Your task to perform on an android device: change notification settings in the gmail app Image 0: 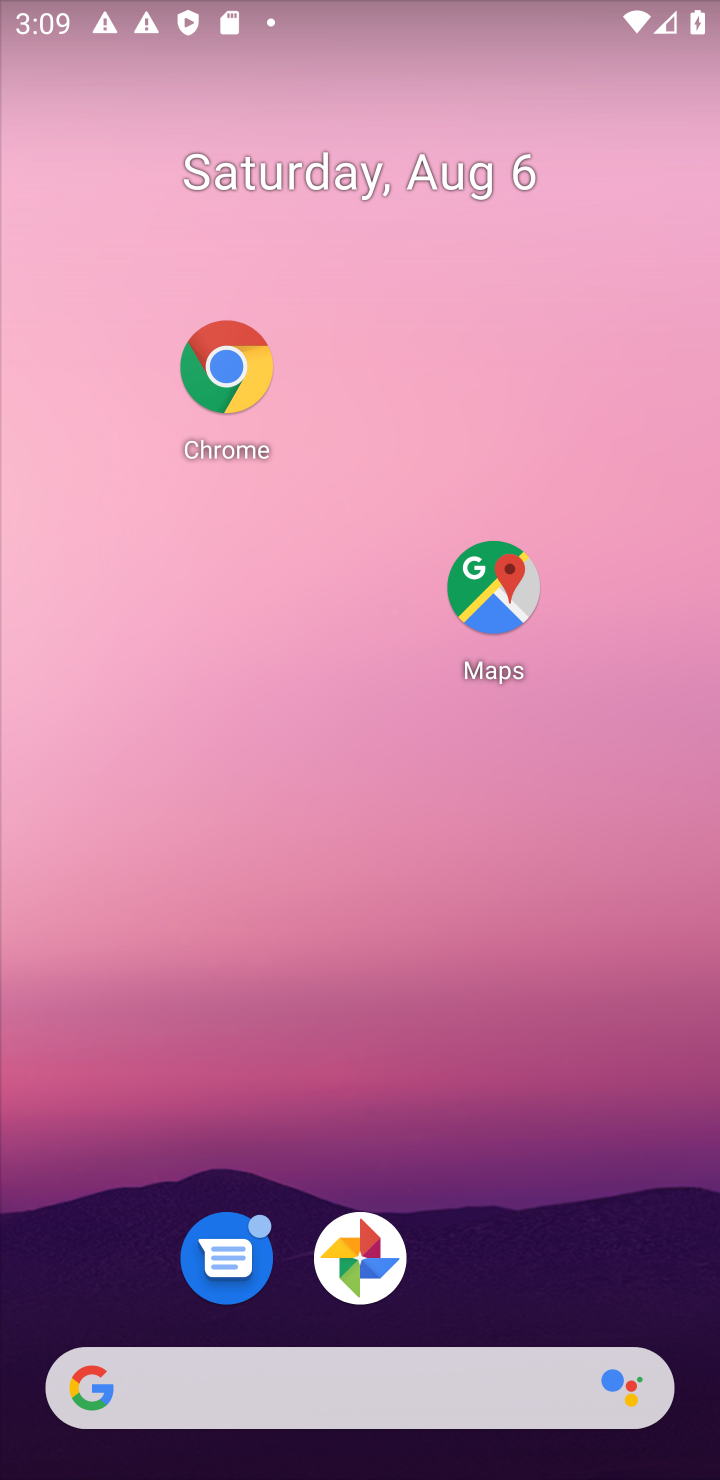
Step 0: click (500, 357)
Your task to perform on an android device: change notification settings in the gmail app Image 1: 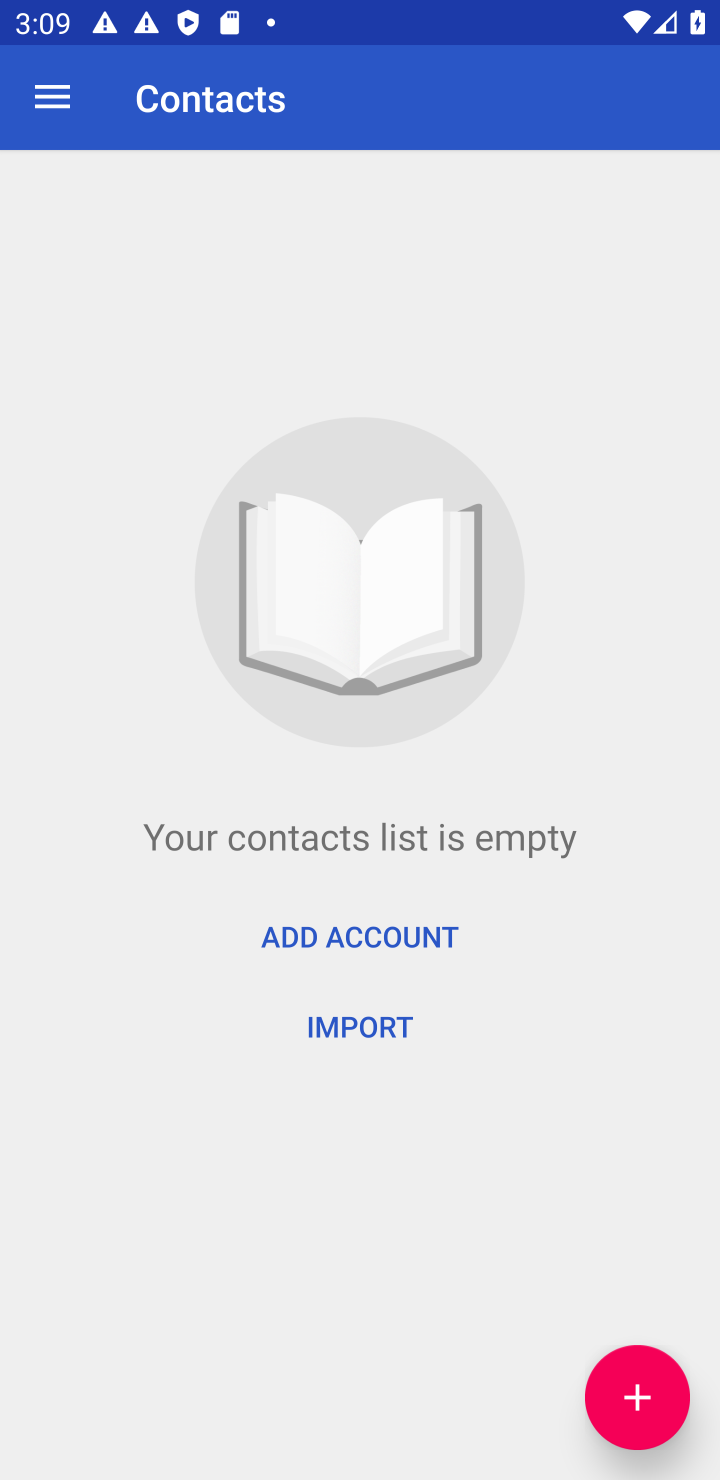
Step 1: press back button
Your task to perform on an android device: change notification settings in the gmail app Image 2: 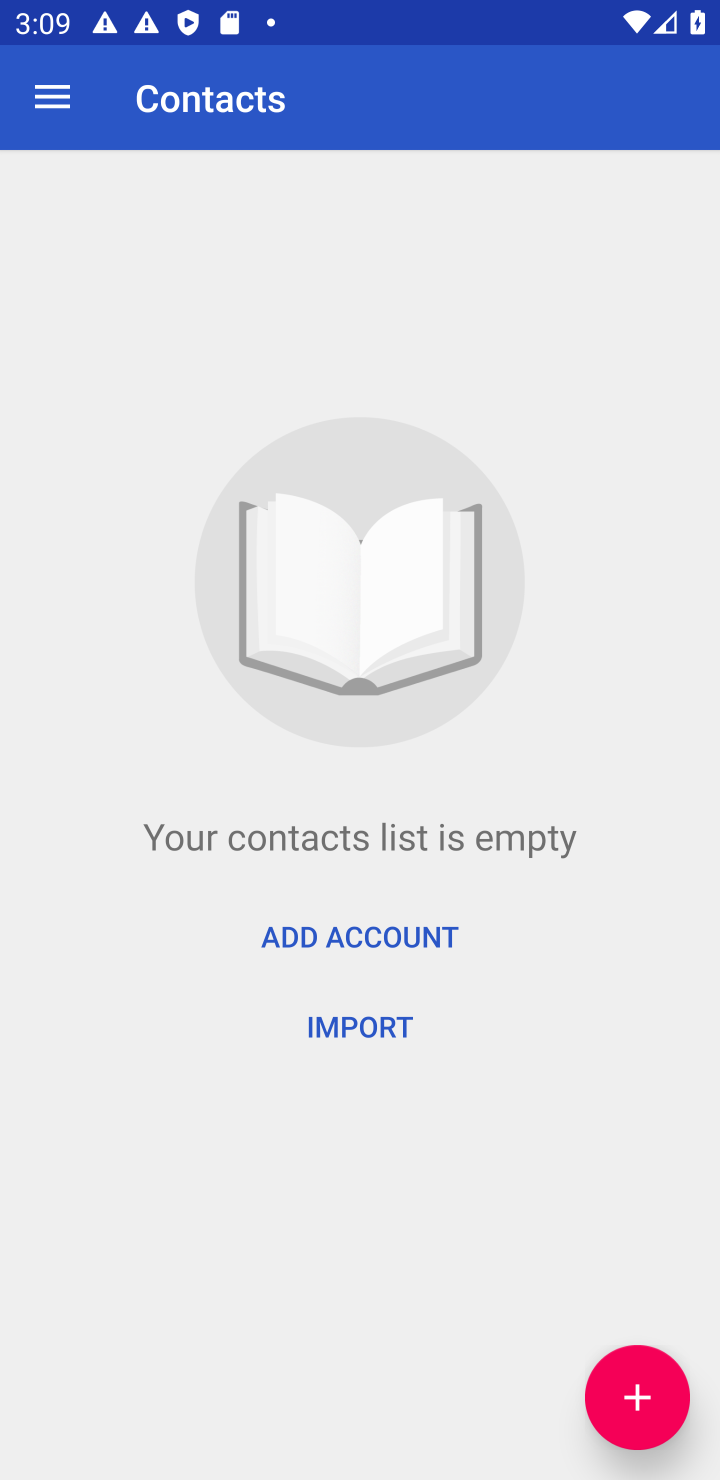
Step 2: press back button
Your task to perform on an android device: change notification settings in the gmail app Image 3: 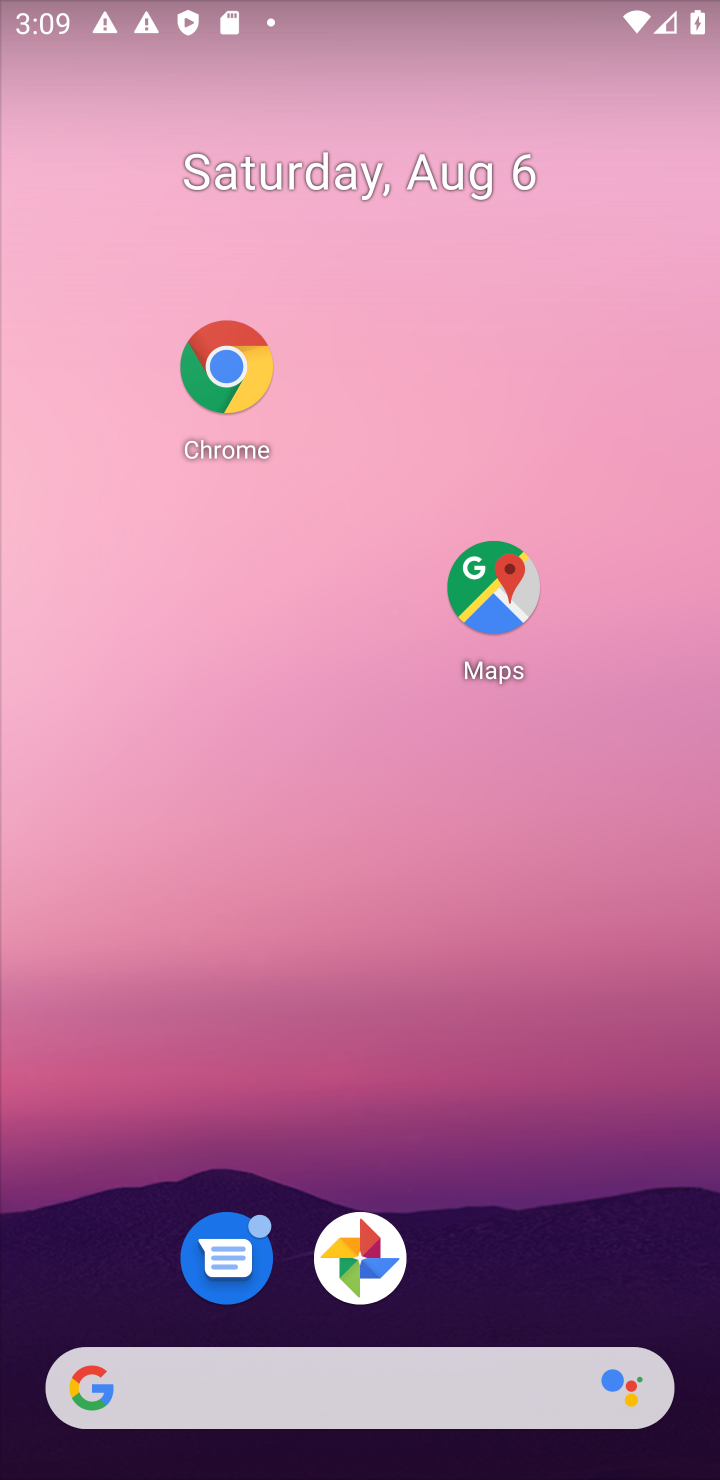
Step 3: click (348, 506)
Your task to perform on an android device: change notification settings in the gmail app Image 4: 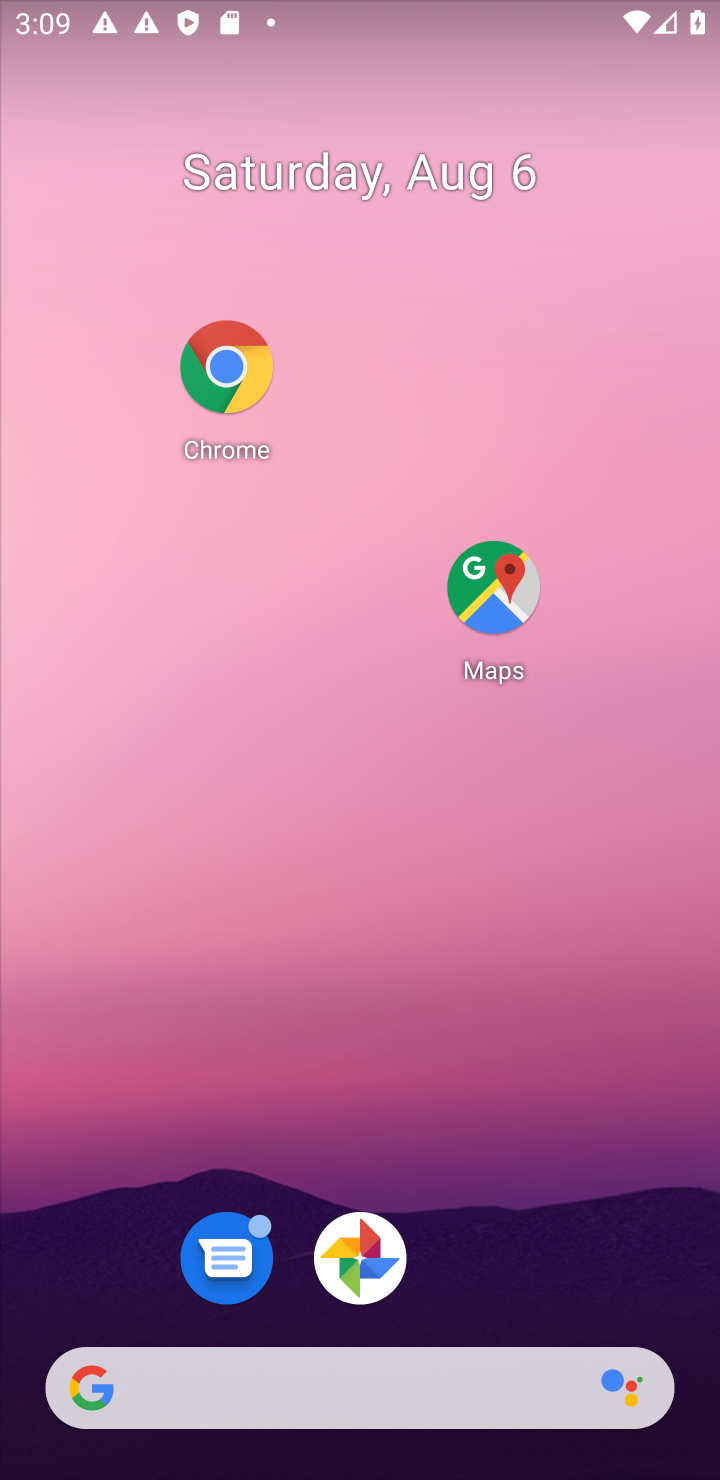
Step 4: click (410, 1019)
Your task to perform on an android device: change notification settings in the gmail app Image 5: 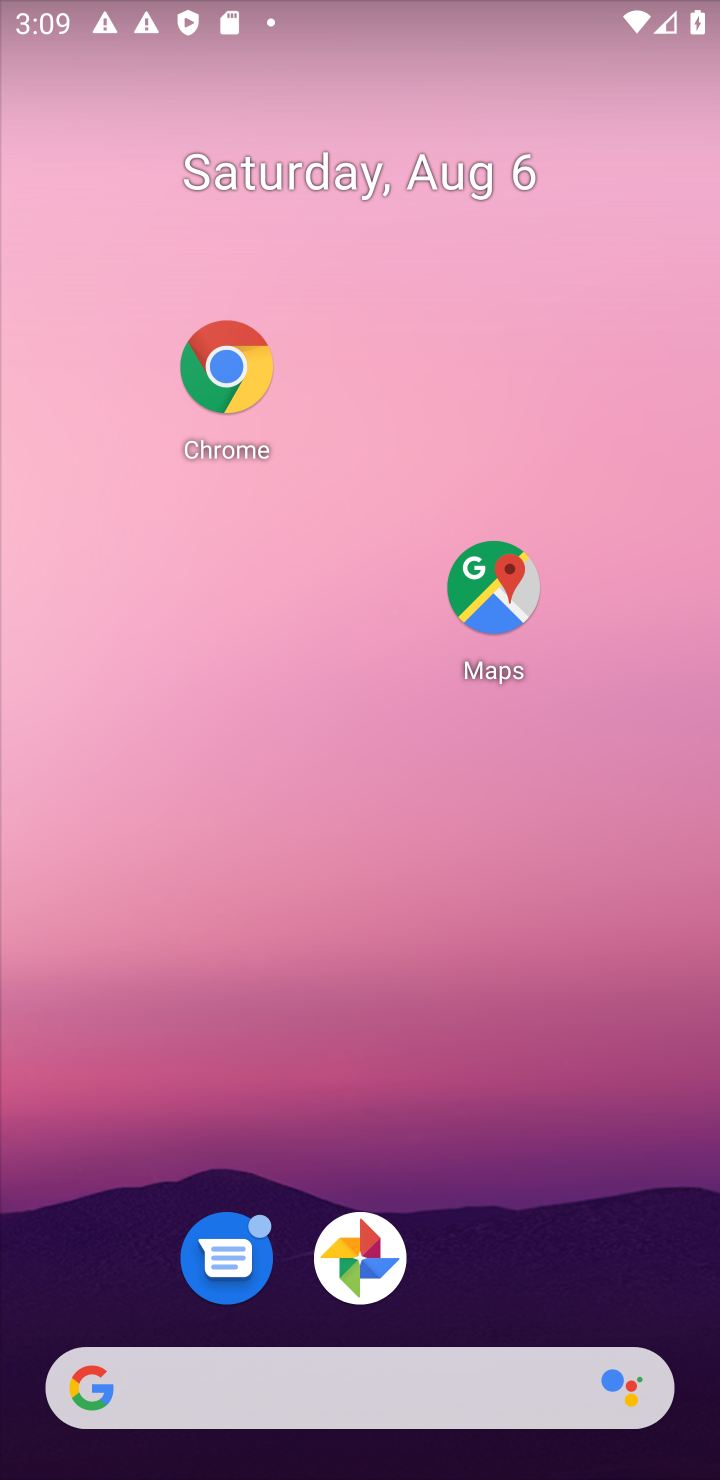
Step 5: drag from (365, 1213) to (323, 127)
Your task to perform on an android device: change notification settings in the gmail app Image 6: 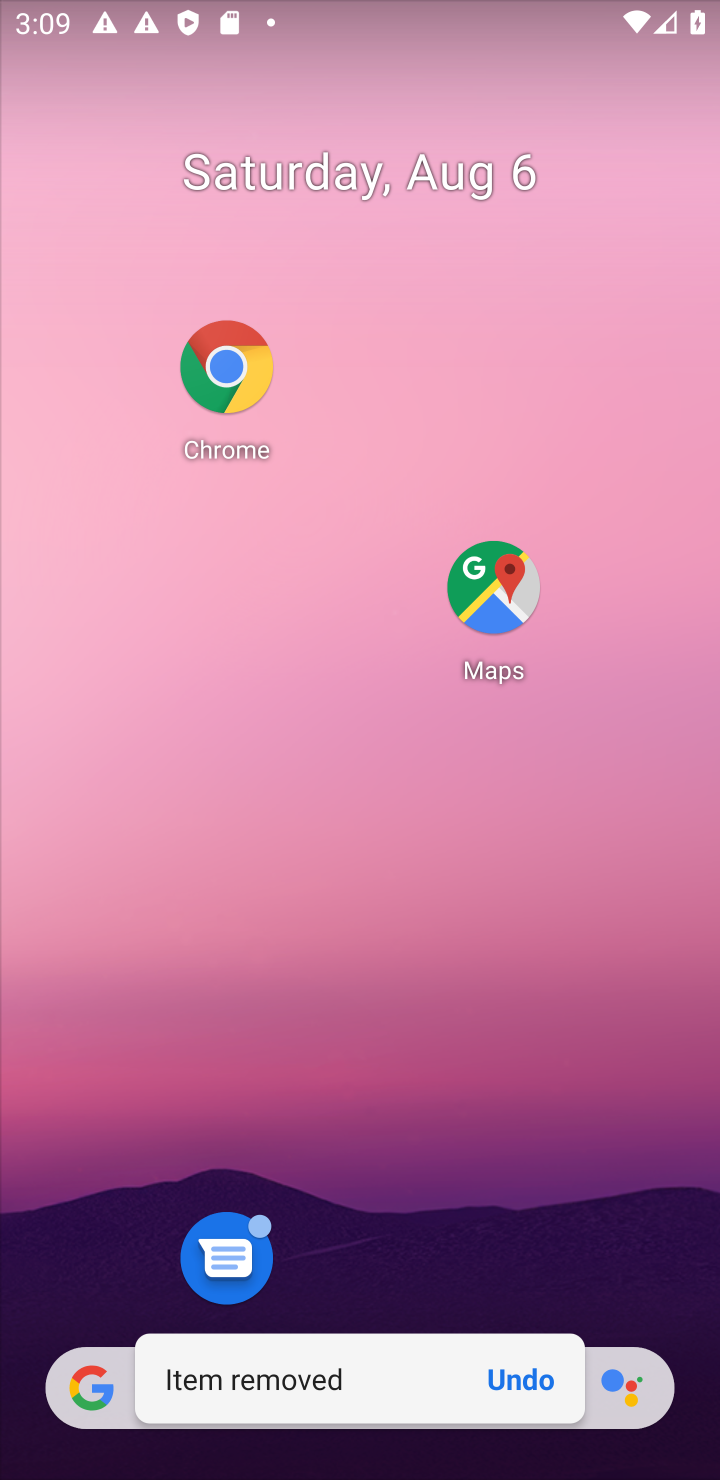
Step 6: drag from (348, 873) to (222, 347)
Your task to perform on an android device: change notification settings in the gmail app Image 7: 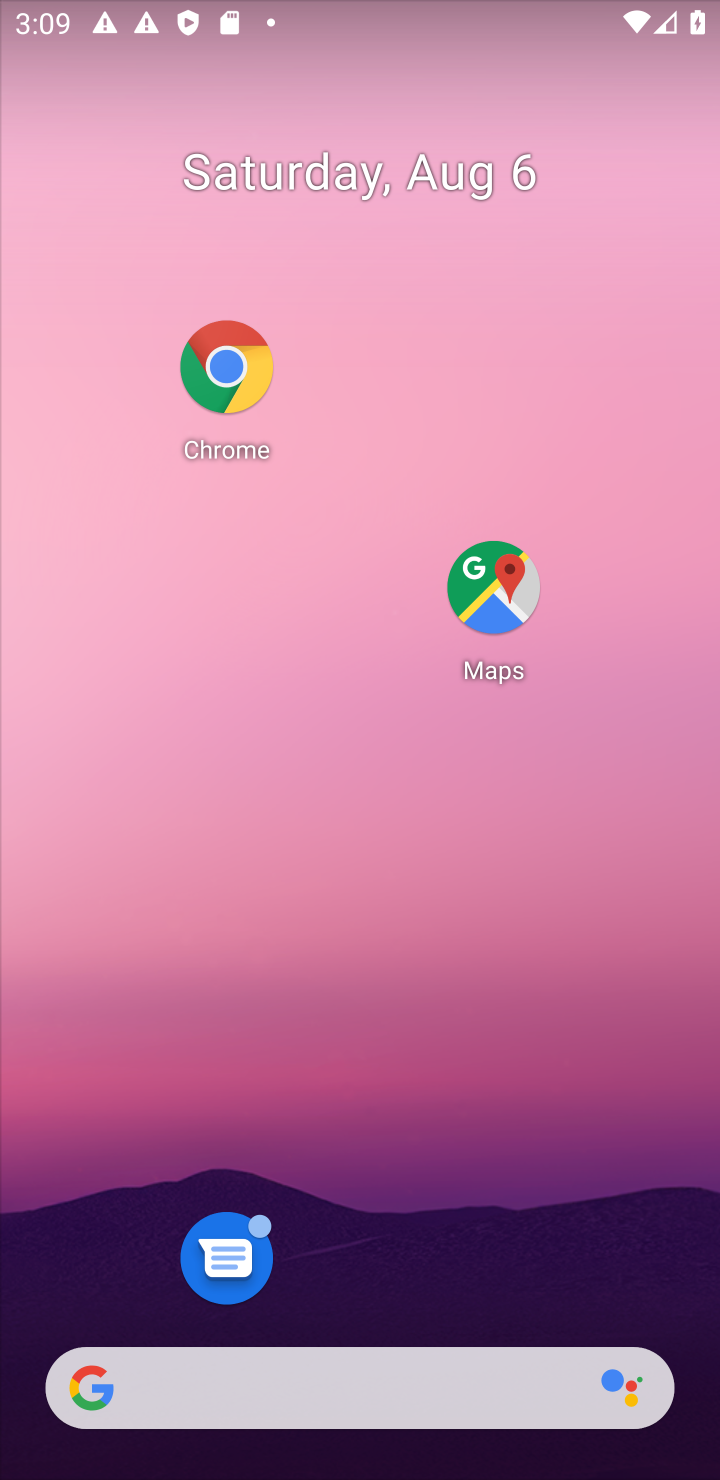
Step 7: drag from (307, 1190) to (288, 112)
Your task to perform on an android device: change notification settings in the gmail app Image 8: 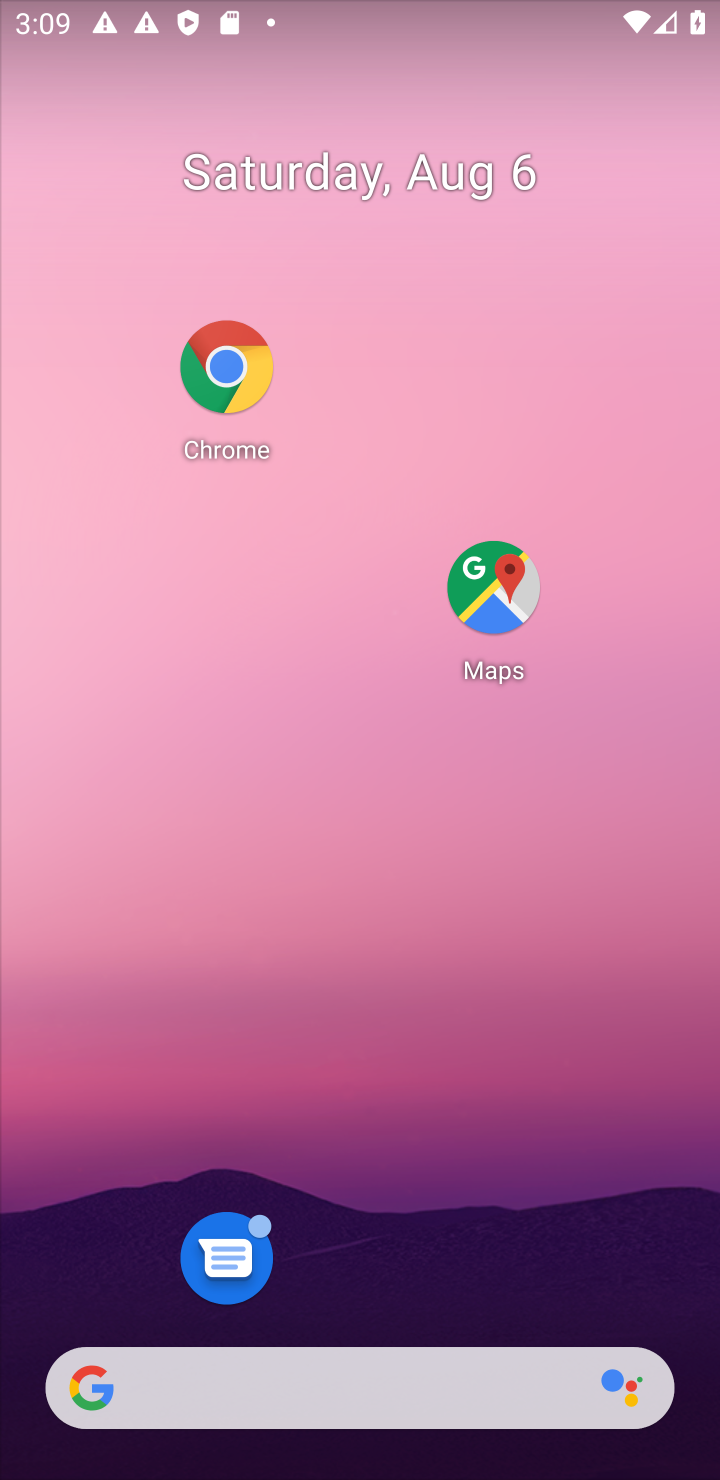
Step 8: drag from (494, 1113) to (332, 154)
Your task to perform on an android device: change notification settings in the gmail app Image 9: 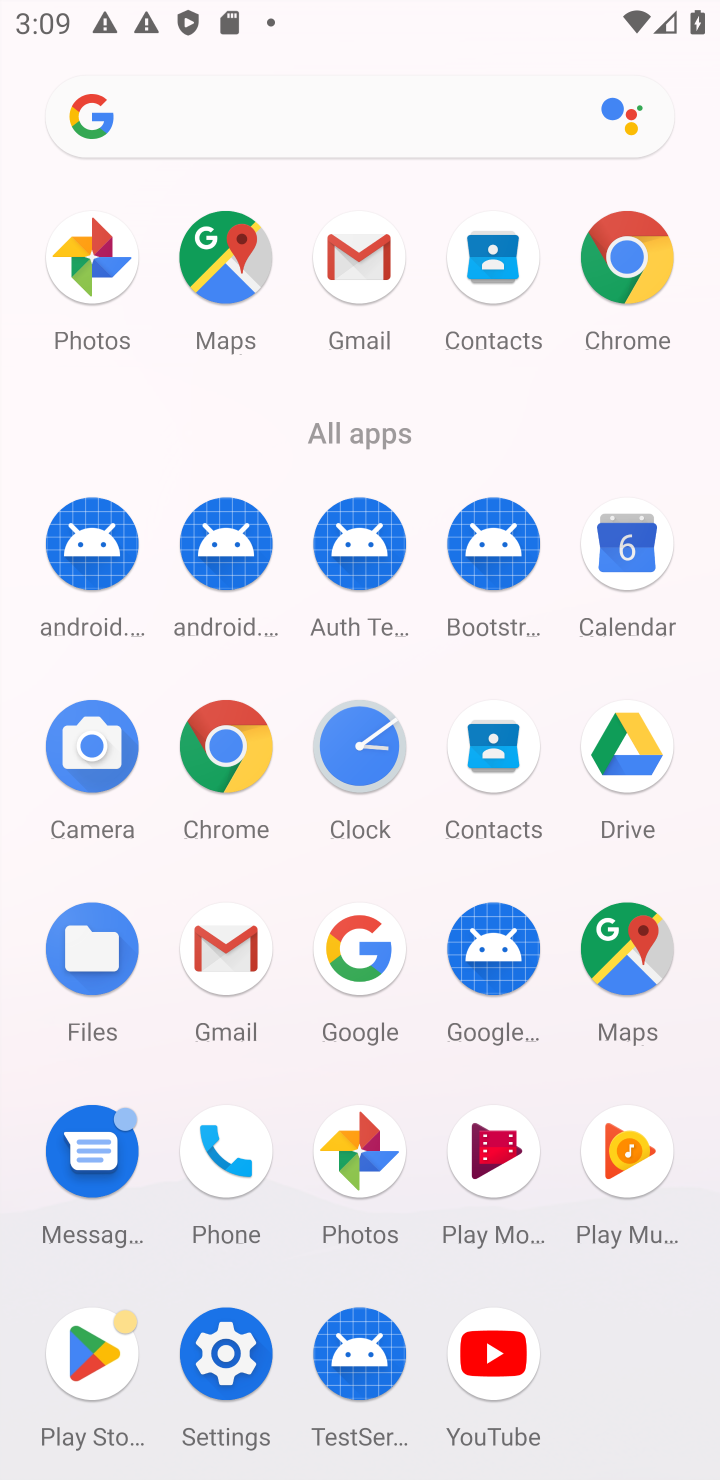
Step 9: click (364, 287)
Your task to perform on an android device: change notification settings in the gmail app Image 10: 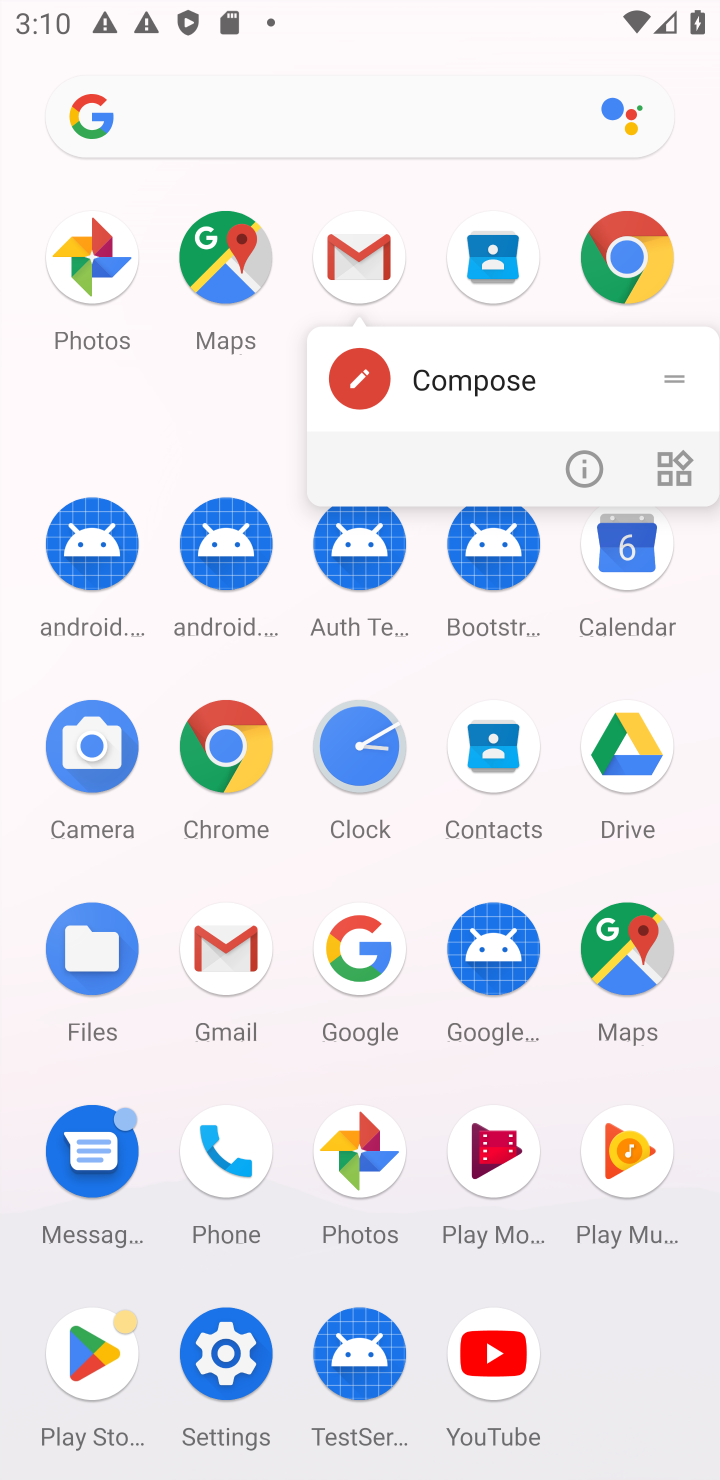
Step 10: click (372, 242)
Your task to perform on an android device: change notification settings in the gmail app Image 11: 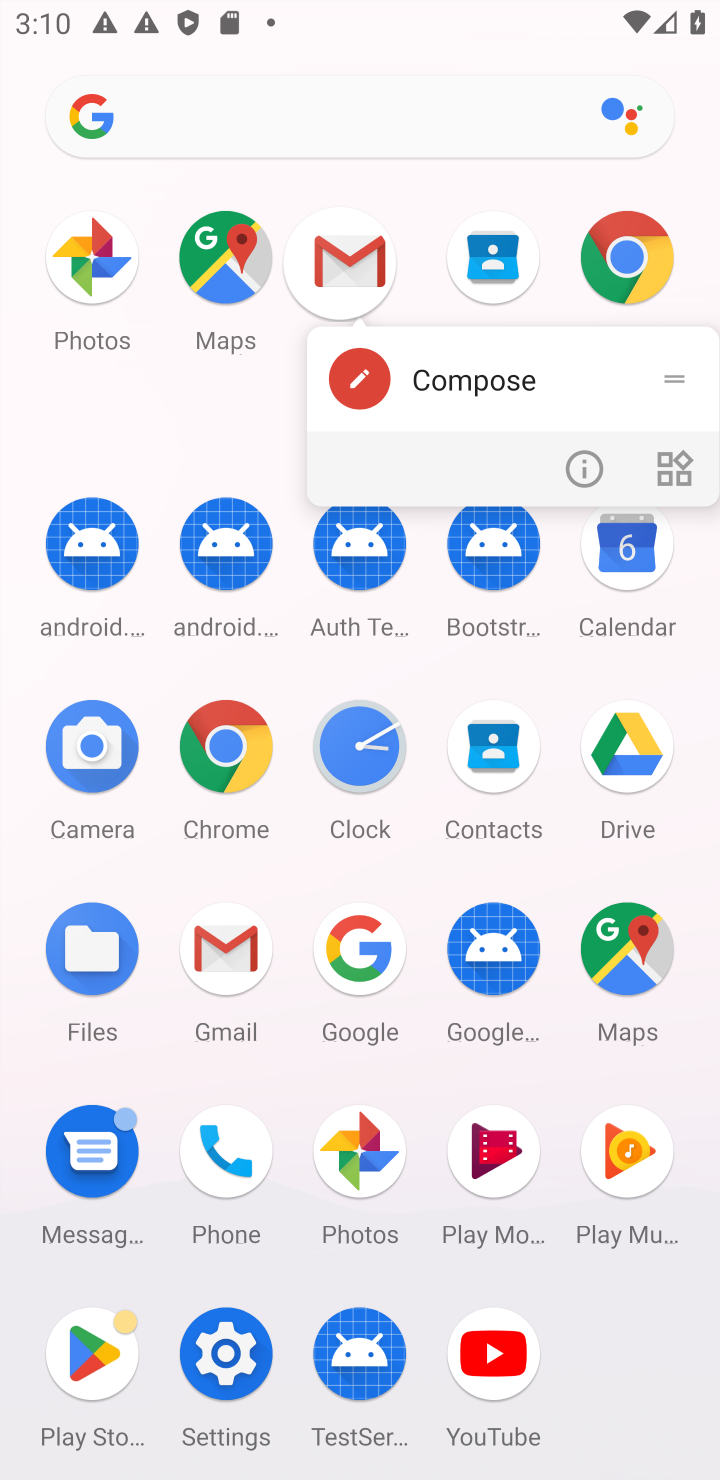
Step 11: click (356, 249)
Your task to perform on an android device: change notification settings in the gmail app Image 12: 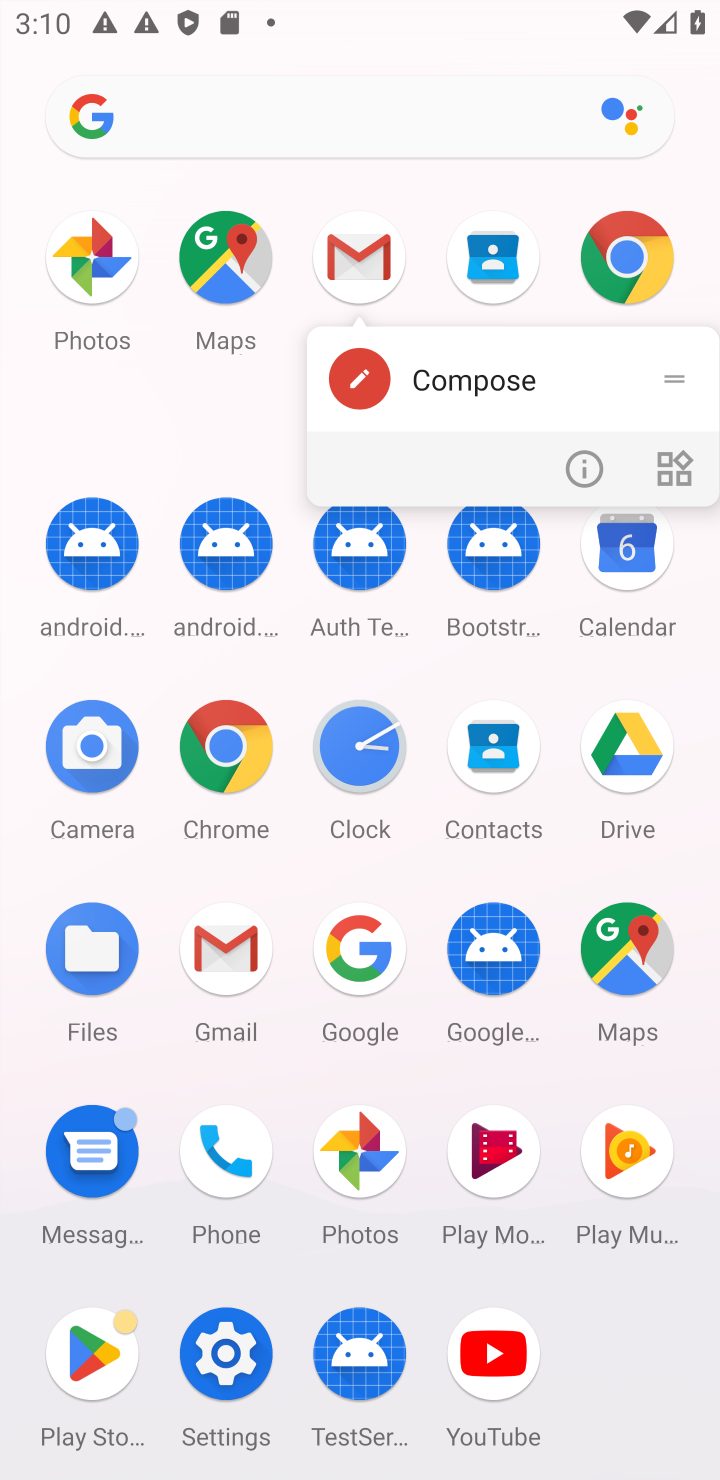
Step 12: click (345, 251)
Your task to perform on an android device: change notification settings in the gmail app Image 13: 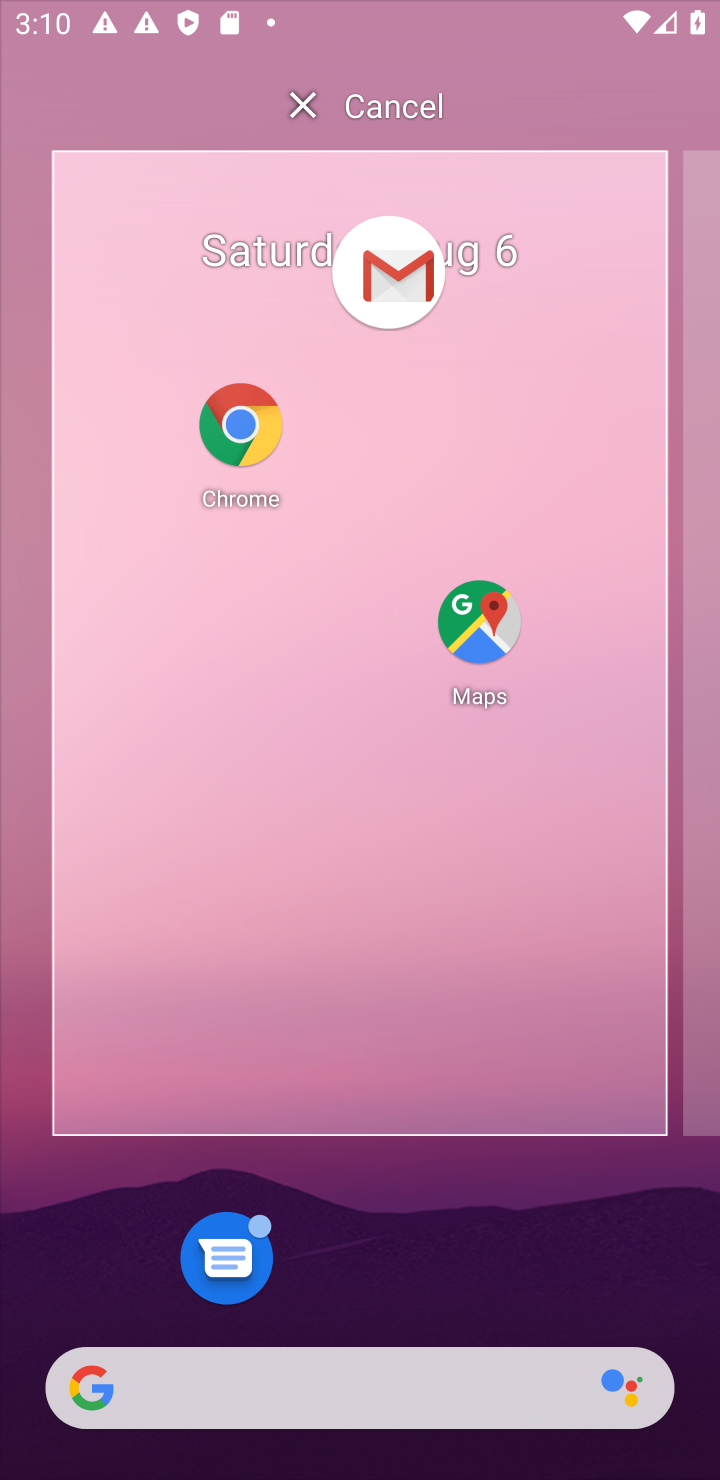
Step 13: click (370, 266)
Your task to perform on an android device: change notification settings in the gmail app Image 14: 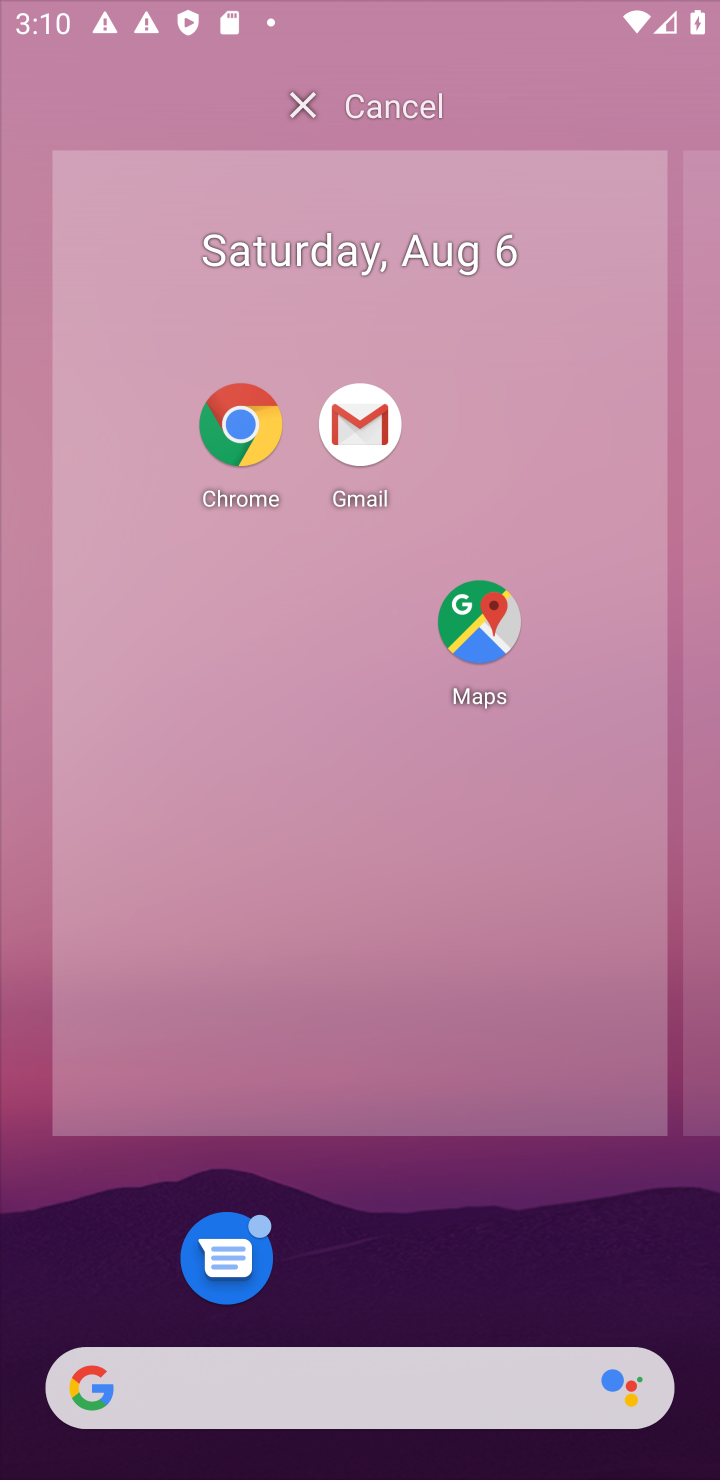
Step 14: click (291, 96)
Your task to perform on an android device: change notification settings in the gmail app Image 15: 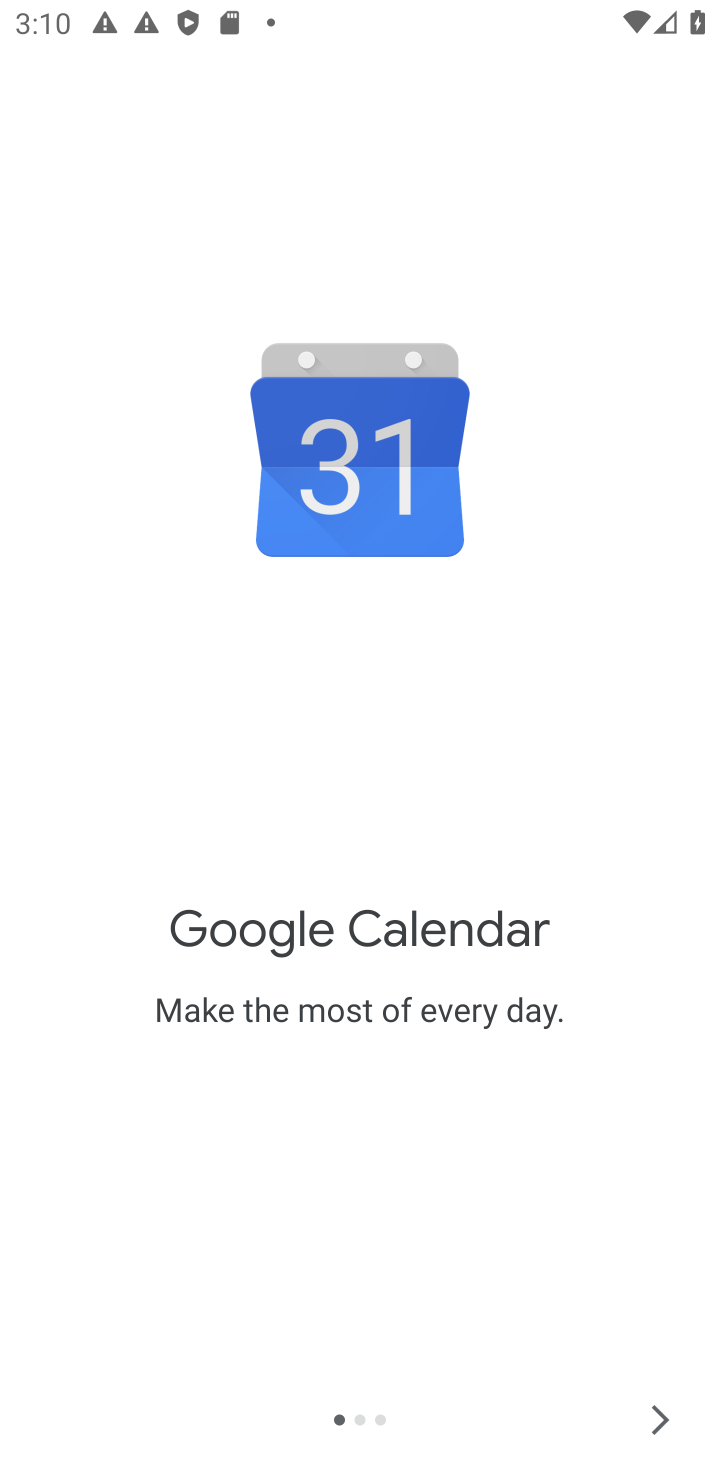
Step 15: click (664, 1402)
Your task to perform on an android device: change notification settings in the gmail app Image 16: 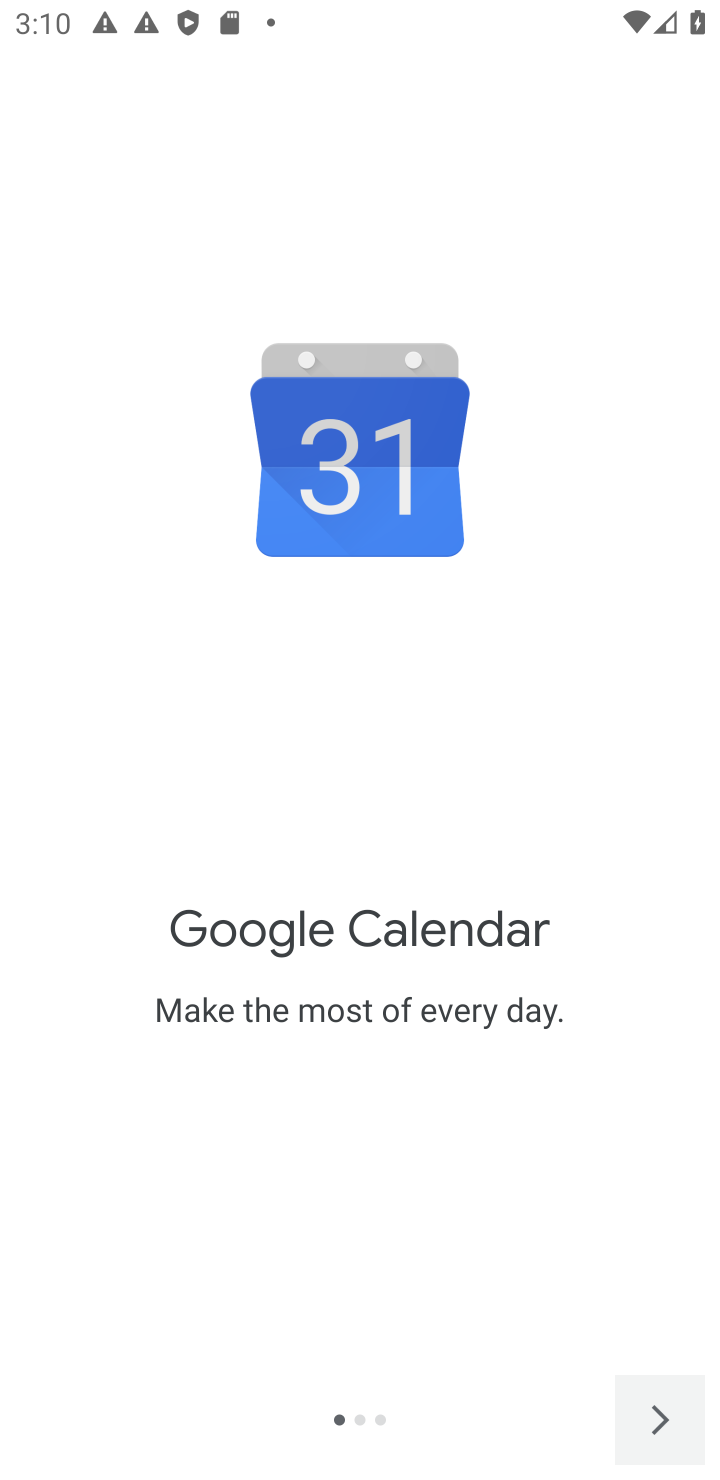
Step 16: click (648, 1406)
Your task to perform on an android device: change notification settings in the gmail app Image 17: 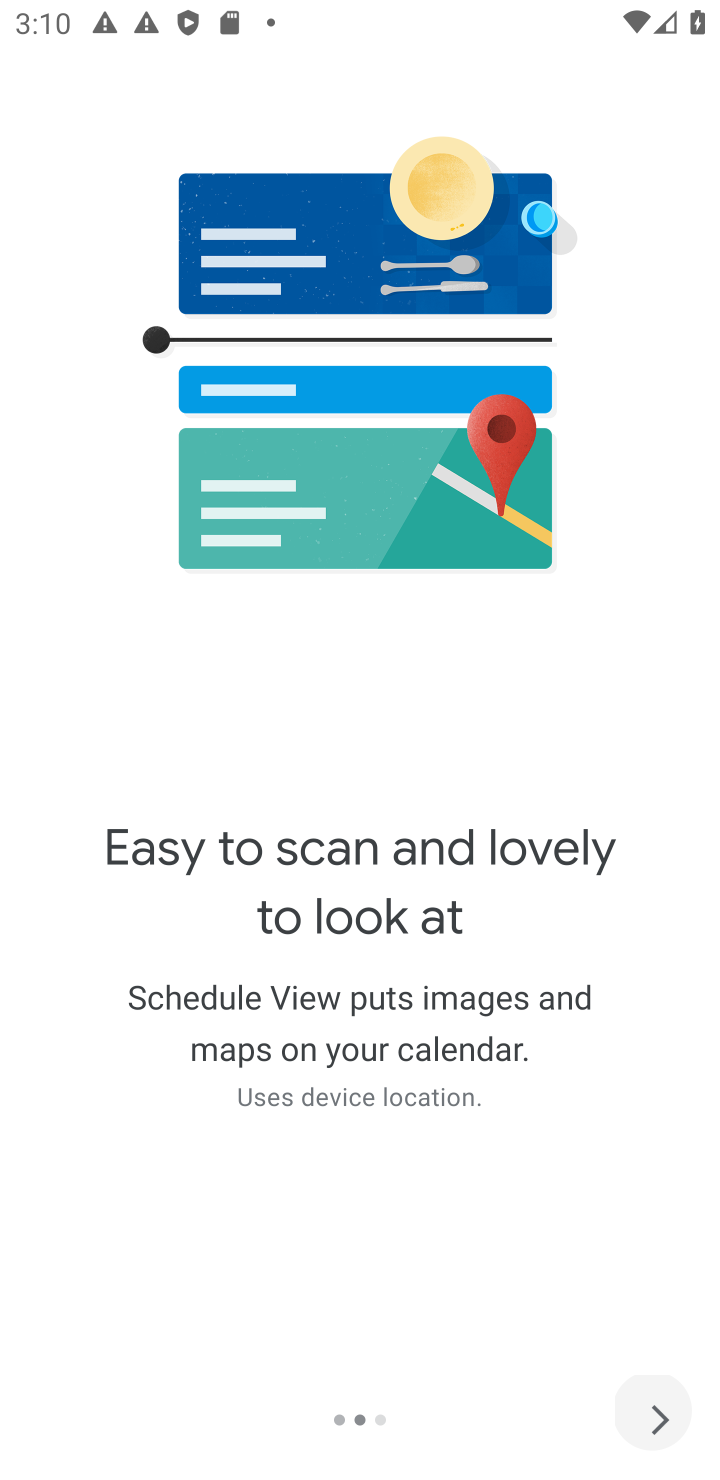
Step 17: click (652, 1401)
Your task to perform on an android device: change notification settings in the gmail app Image 18: 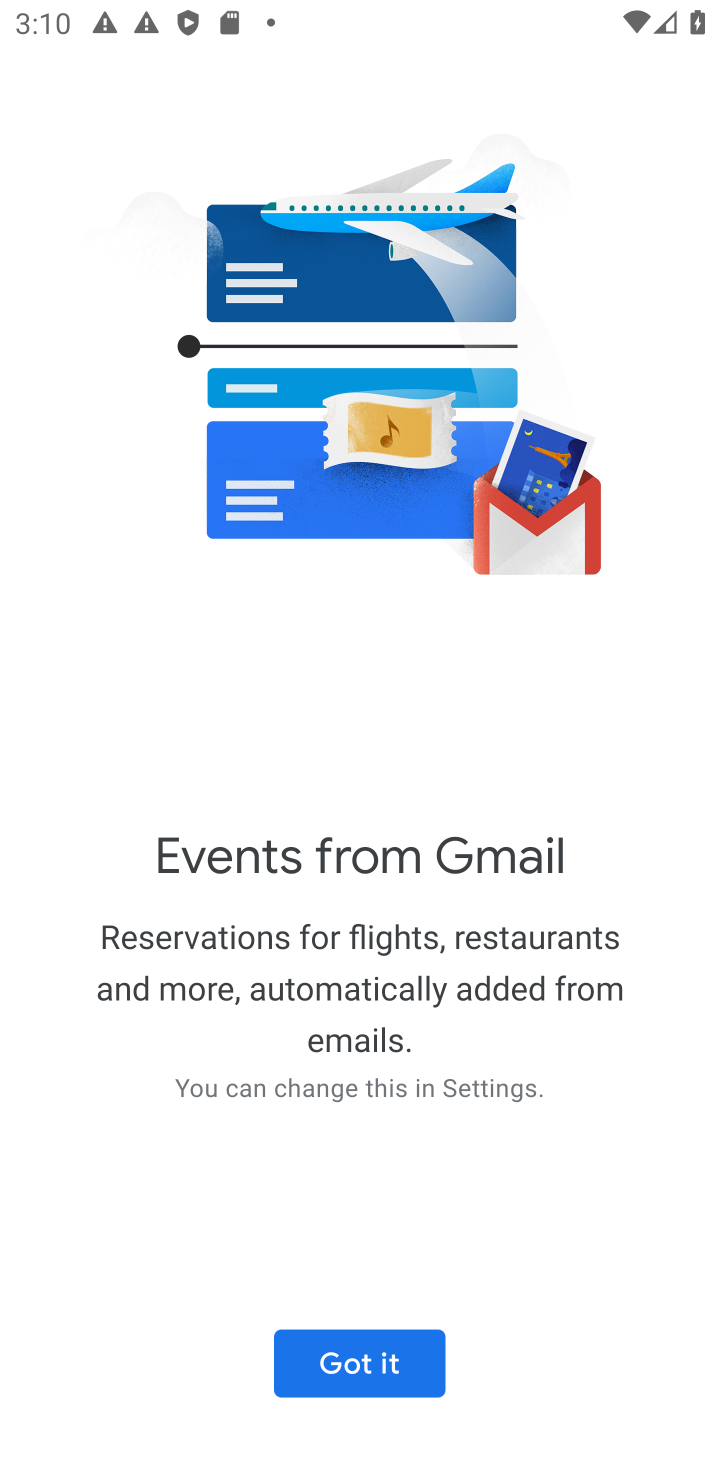
Step 18: click (369, 1359)
Your task to perform on an android device: change notification settings in the gmail app Image 19: 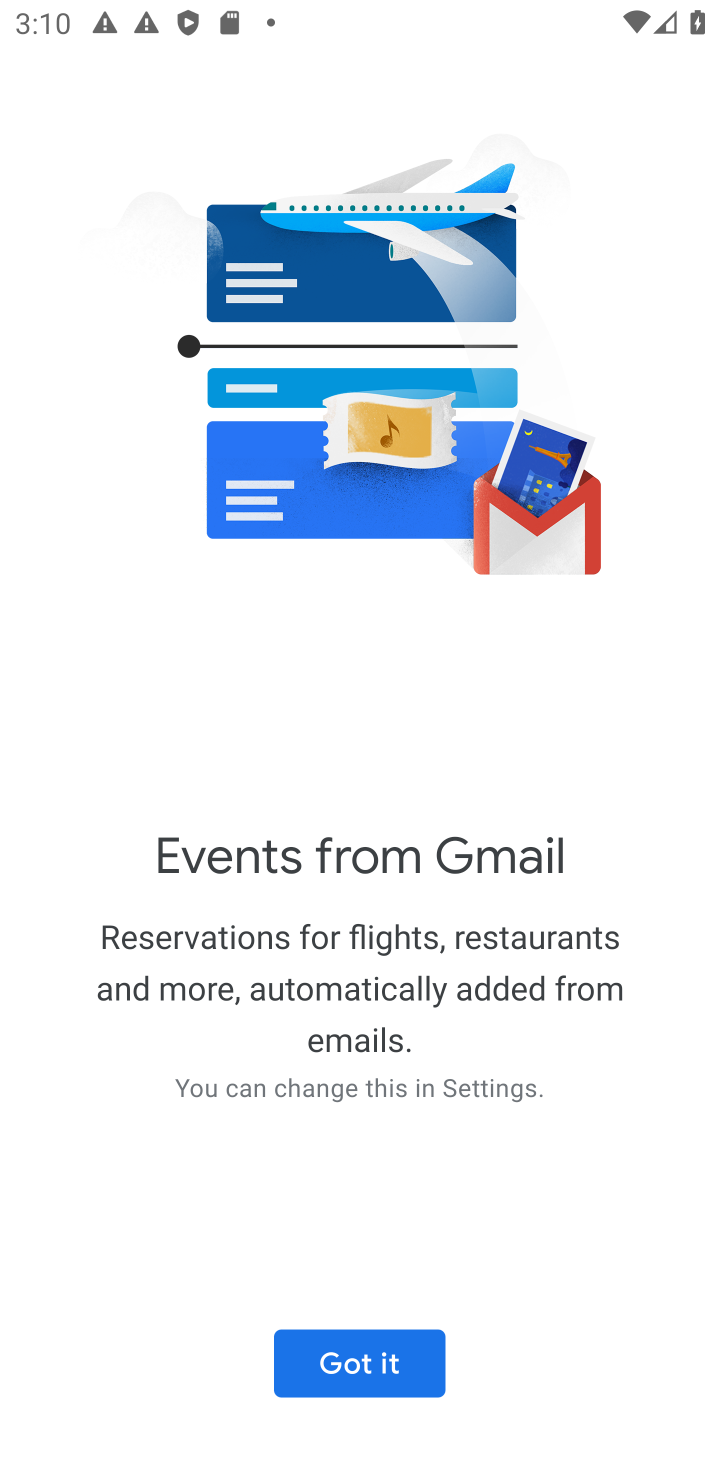
Step 19: click (362, 1365)
Your task to perform on an android device: change notification settings in the gmail app Image 20: 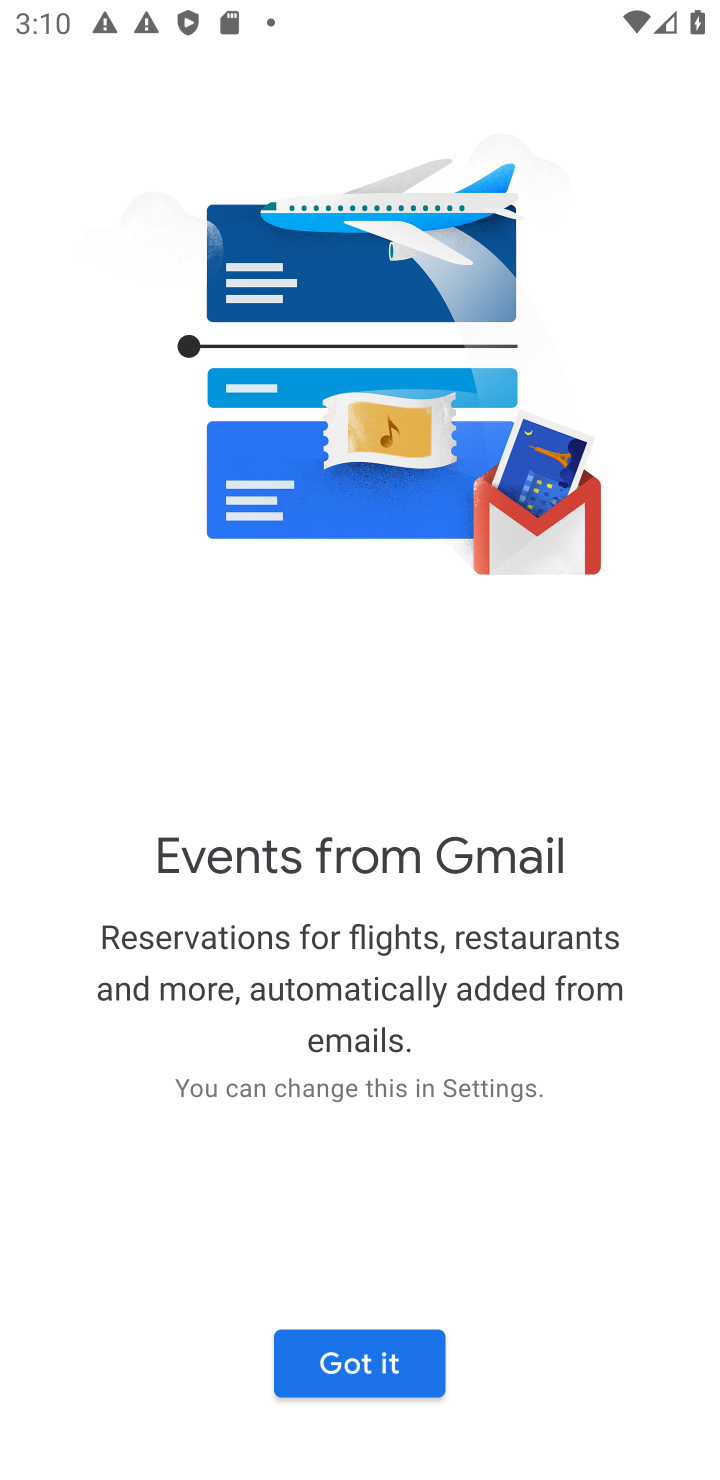
Step 20: click (361, 1366)
Your task to perform on an android device: change notification settings in the gmail app Image 21: 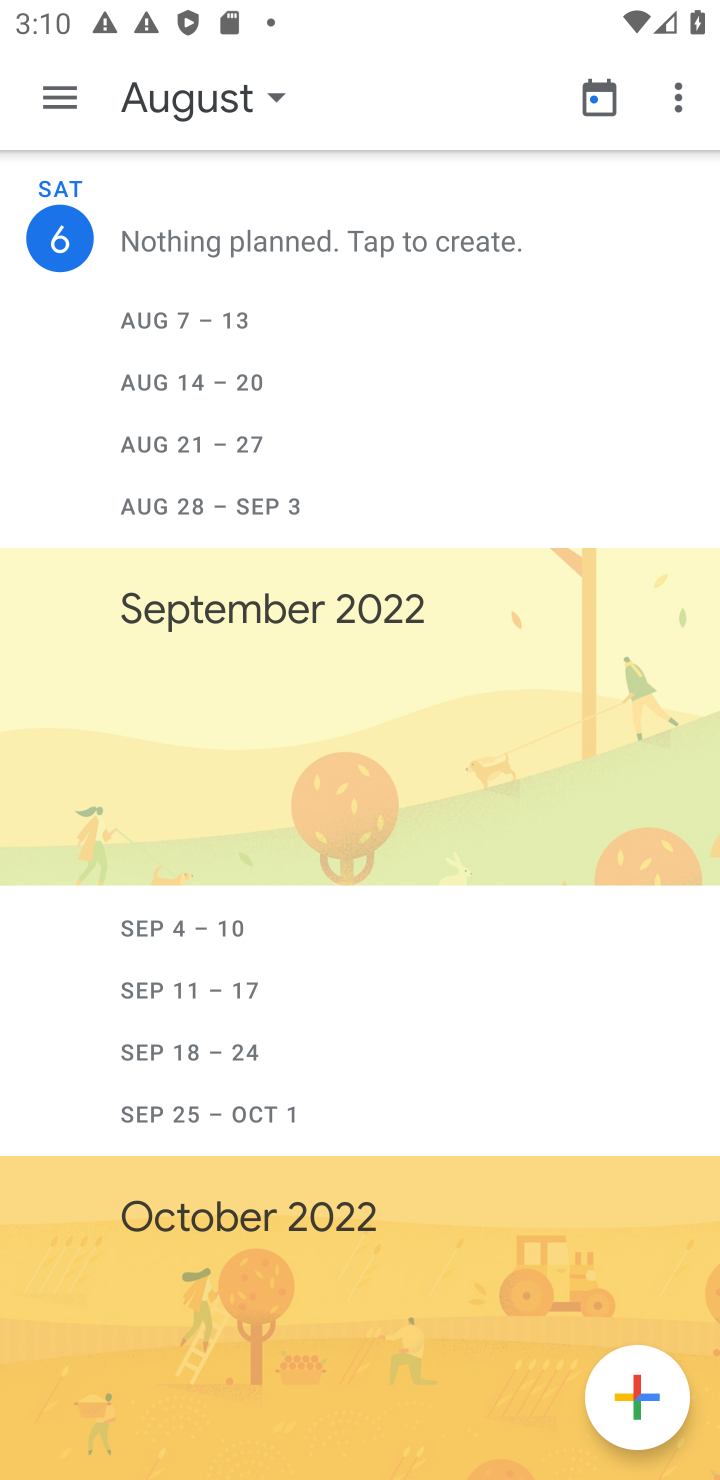
Step 21: task complete